Your task to perform on an android device: change the clock display to analog Image 0: 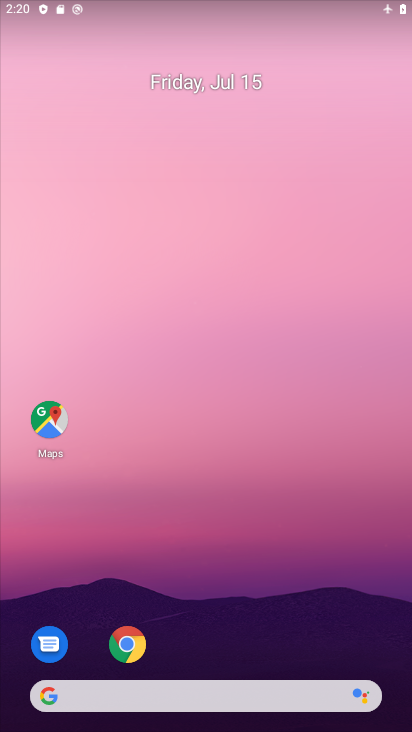
Step 0: drag from (295, 684) to (281, 71)
Your task to perform on an android device: change the clock display to analog Image 1: 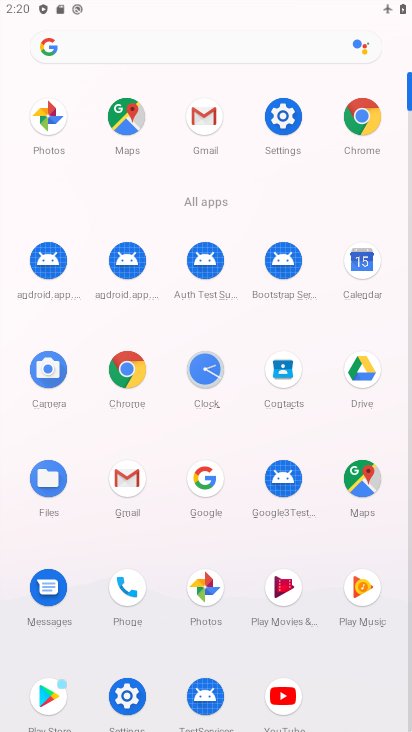
Step 1: click (207, 368)
Your task to perform on an android device: change the clock display to analog Image 2: 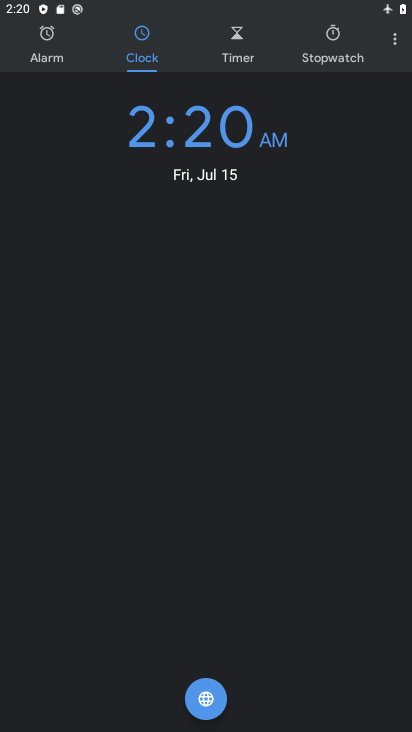
Step 2: click (393, 38)
Your task to perform on an android device: change the clock display to analog Image 3: 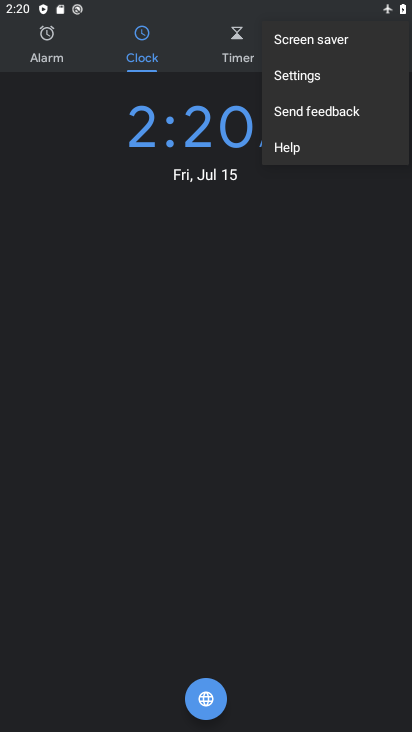
Step 3: click (323, 80)
Your task to perform on an android device: change the clock display to analog Image 4: 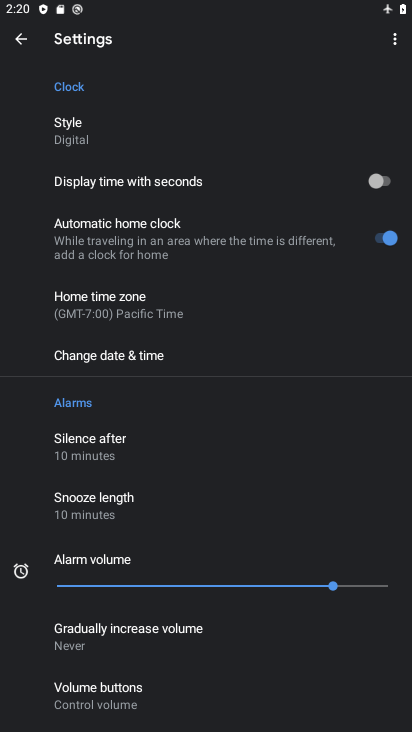
Step 4: click (67, 128)
Your task to perform on an android device: change the clock display to analog Image 5: 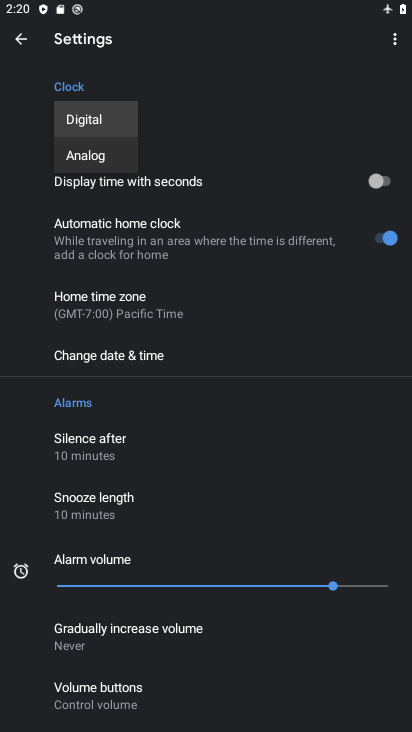
Step 5: click (103, 153)
Your task to perform on an android device: change the clock display to analog Image 6: 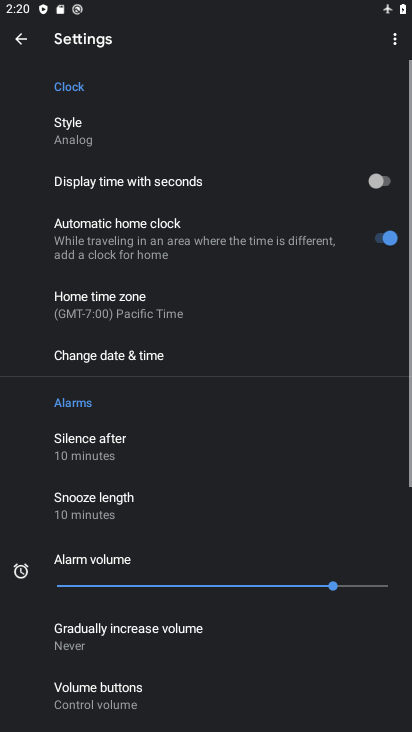
Step 6: task complete